Your task to perform on an android device: check google app version Image 0: 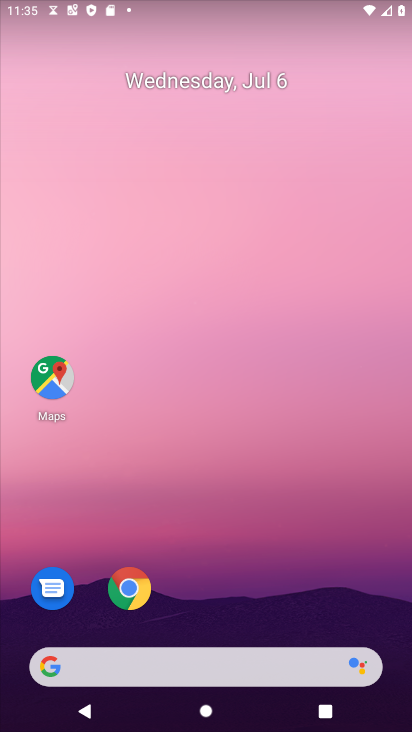
Step 0: drag from (208, 600) to (270, 312)
Your task to perform on an android device: check google app version Image 1: 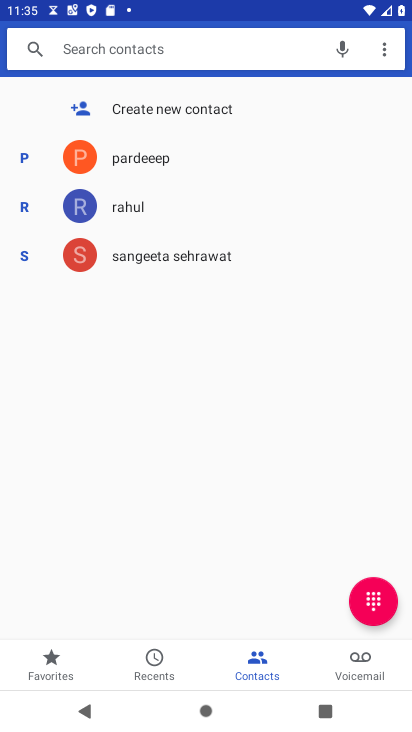
Step 1: press home button
Your task to perform on an android device: check google app version Image 2: 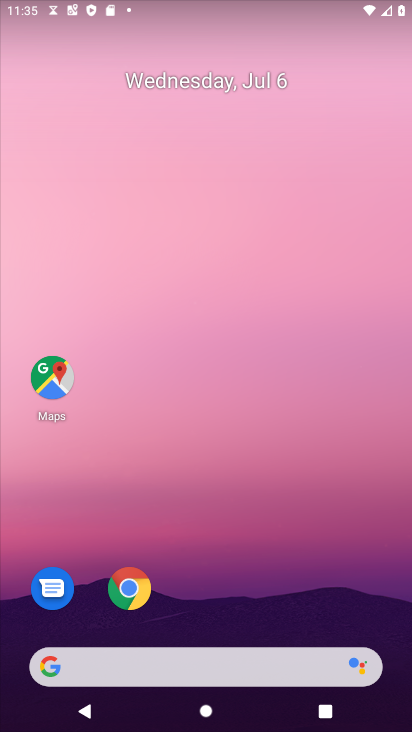
Step 2: drag from (225, 567) to (229, 213)
Your task to perform on an android device: check google app version Image 3: 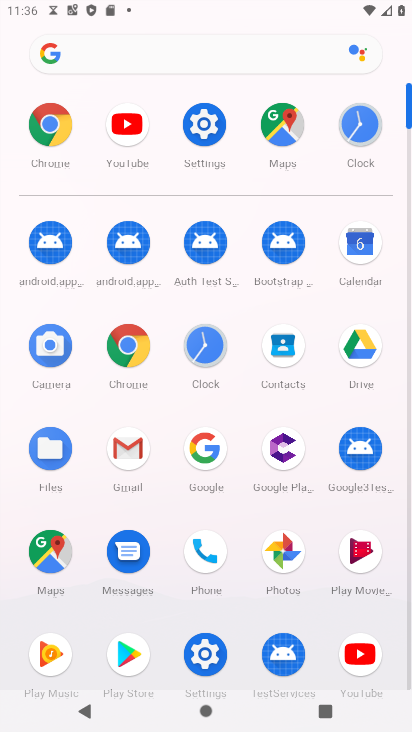
Step 3: click (202, 444)
Your task to perform on an android device: check google app version Image 4: 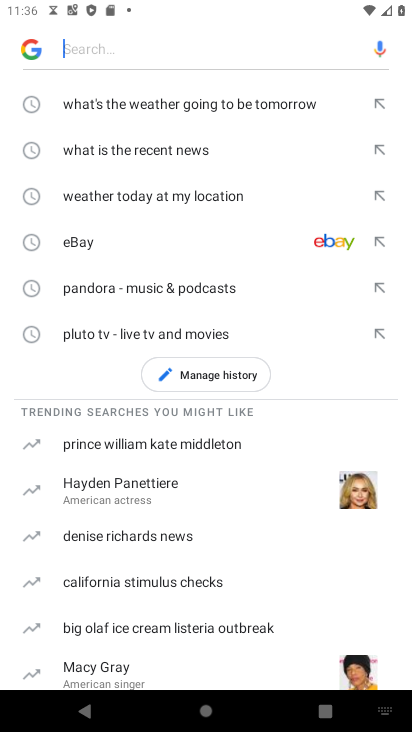
Step 4: click (34, 44)
Your task to perform on an android device: check google app version Image 5: 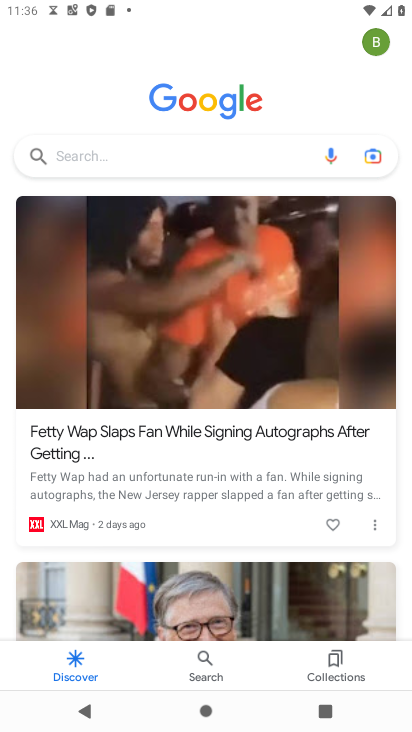
Step 5: click (375, 35)
Your task to perform on an android device: check google app version Image 6: 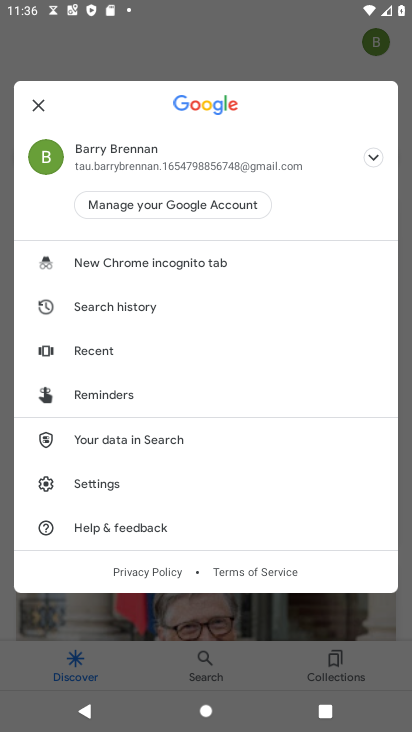
Step 6: click (120, 493)
Your task to perform on an android device: check google app version Image 7: 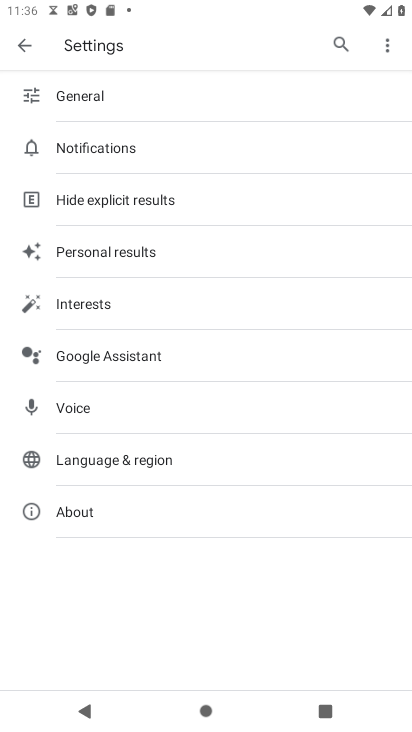
Step 7: click (102, 500)
Your task to perform on an android device: check google app version Image 8: 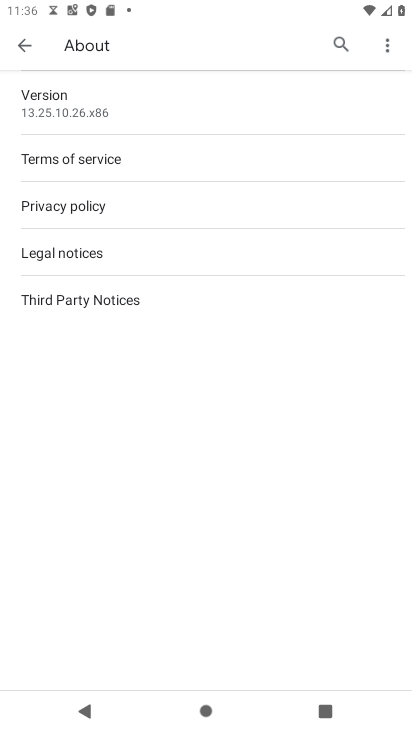
Step 8: click (210, 87)
Your task to perform on an android device: check google app version Image 9: 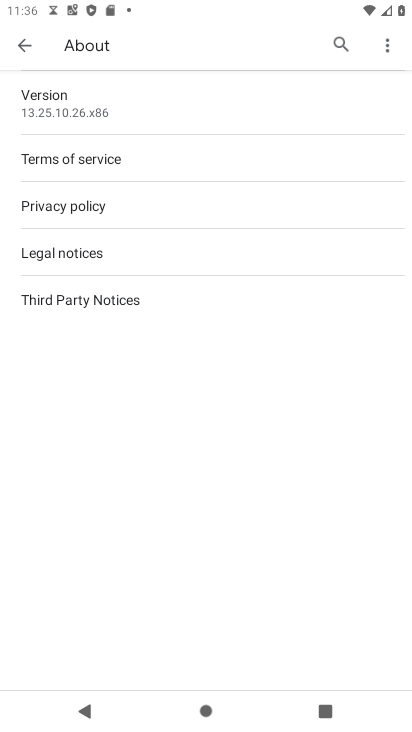
Step 9: task complete